Your task to perform on an android device: Open eBay Image 0: 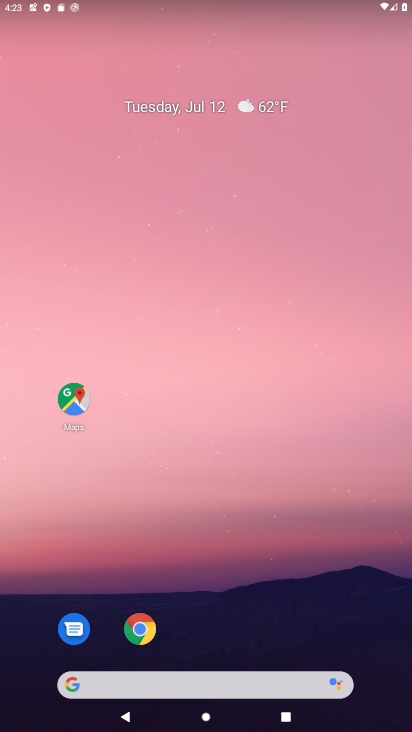
Step 0: click (150, 630)
Your task to perform on an android device: Open eBay Image 1: 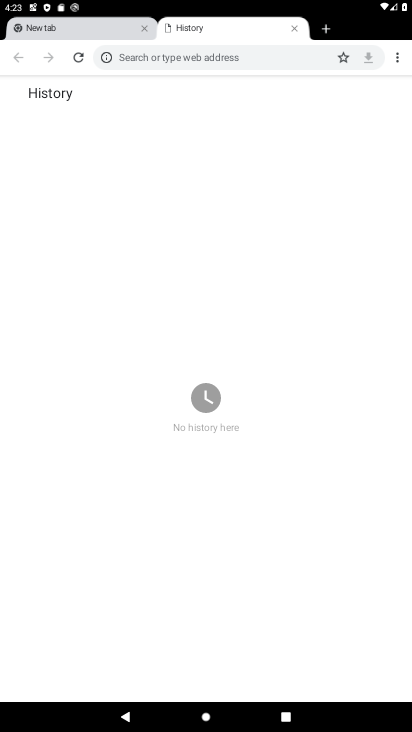
Step 1: click (26, 23)
Your task to perform on an android device: Open eBay Image 2: 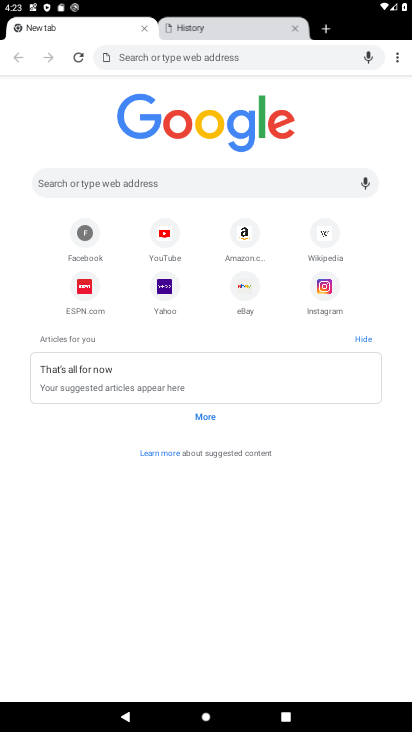
Step 2: click (255, 301)
Your task to perform on an android device: Open eBay Image 3: 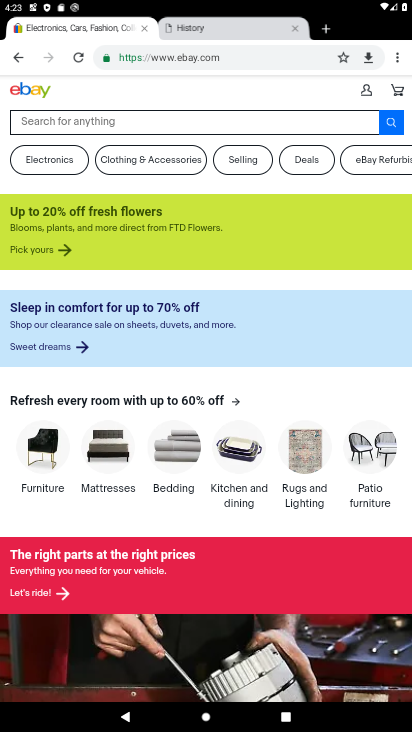
Step 3: task complete